Your task to perform on an android device: toggle javascript in the chrome app Image 0: 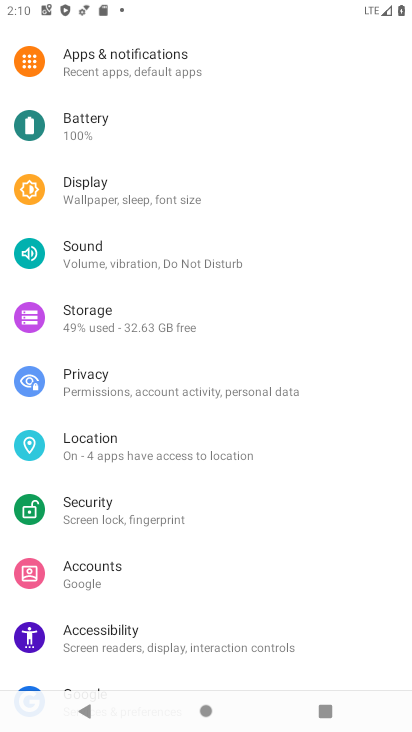
Step 0: drag from (305, 210) to (308, 577)
Your task to perform on an android device: toggle javascript in the chrome app Image 1: 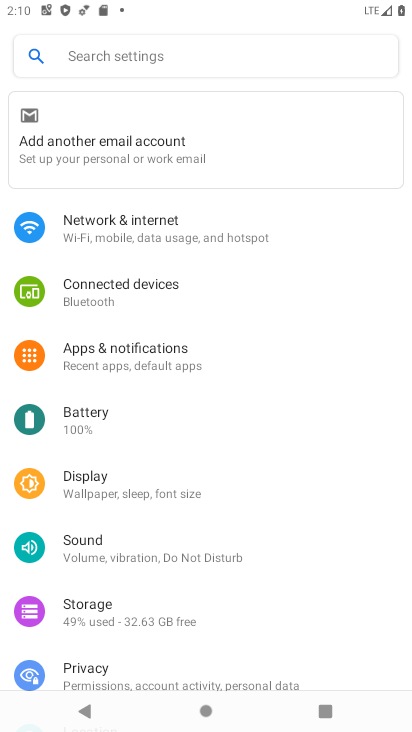
Step 1: drag from (258, 627) to (269, 1)
Your task to perform on an android device: toggle javascript in the chrome app Image 2: 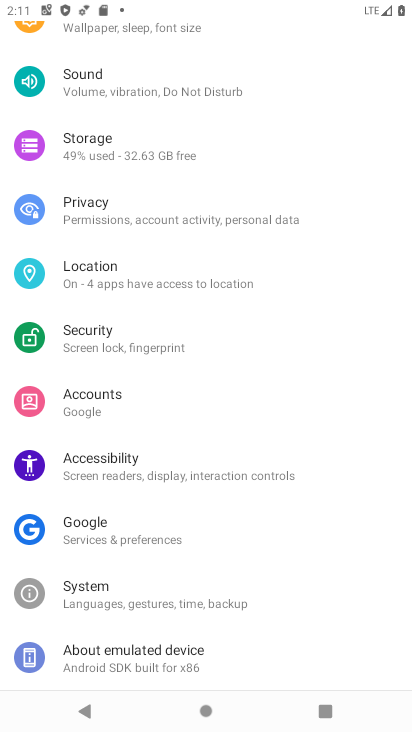
Step 2: press home button
Your task to perform on an android device: toggle javascript in the chrome app Image 3: 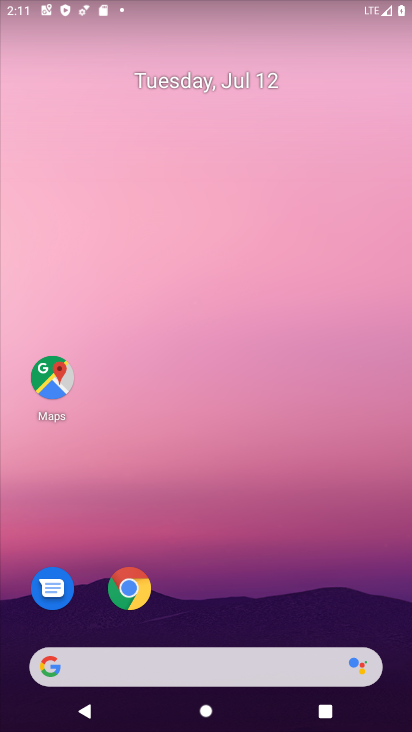
Step 3: click (142, 585)
Your task to perform on an android device: toggle javascript in the chrome app Image 4: 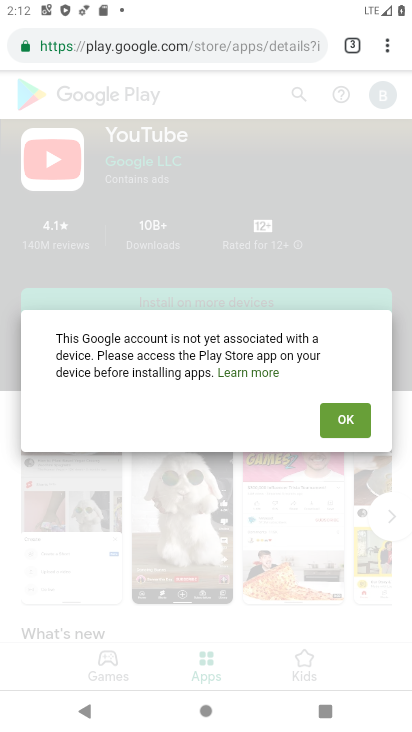
Step 4: click (384, 42)
Your task to perform on an android device: toggle javascript in the chrome app Image 5: 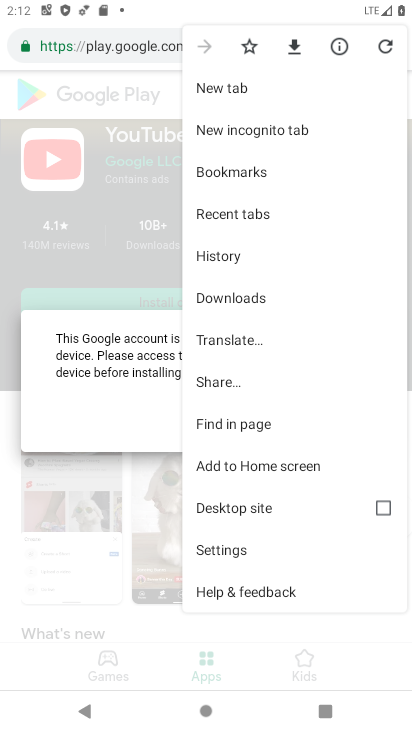
Step 5: click (246, 551)
Your task to perform on an android device: toggle javascript in the chrome app Image 6: 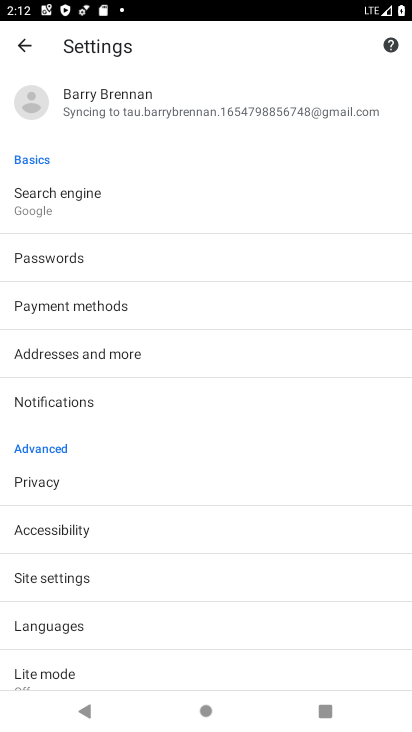
Step 6: click (75, 579)
Your task to perform on an android device: toggle javascript in the chrome app Image 7: 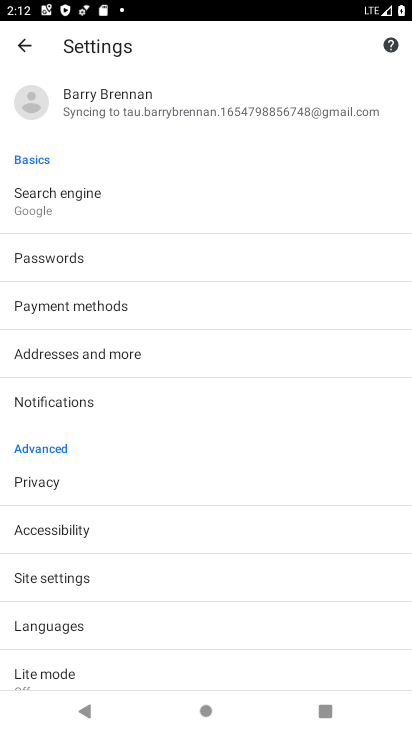
Step 7: click (71, 581)
Your task to perform on an android device: toggle javascript in the chrome app Image 8: 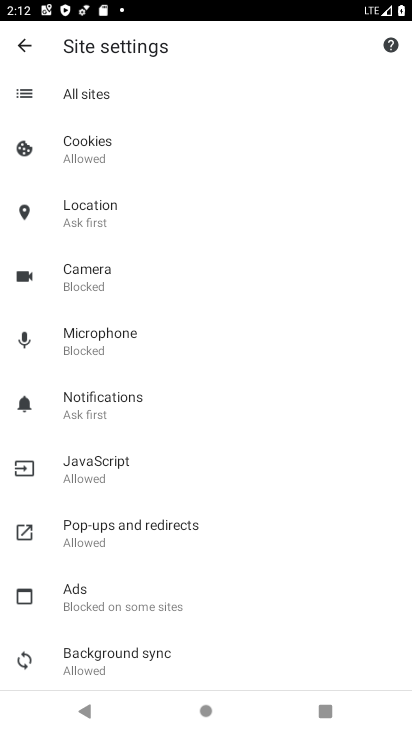
Step 8: click (104, 472)
Your task to perform on an android device: toggle javascript in the chrome app Image 9: 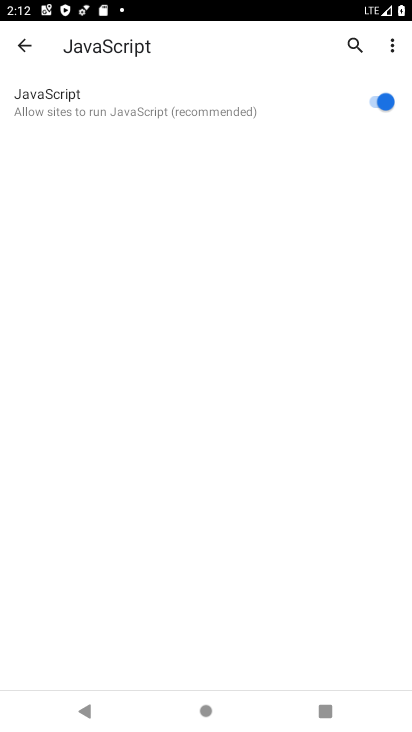
Step 9: click (385, 98)
Your task to perform on an android device: toggle javascript in the chrome app Image 10: 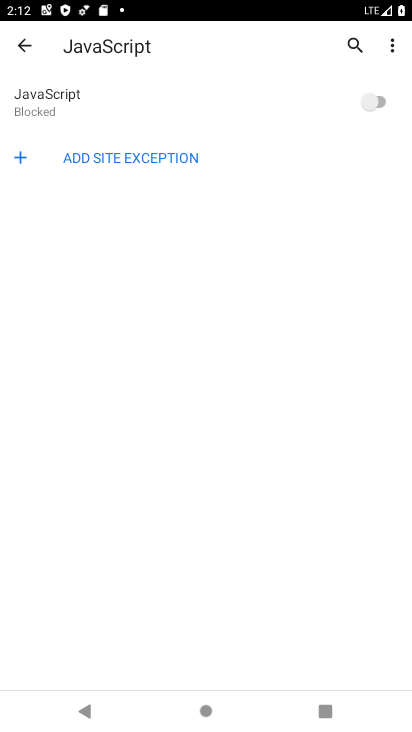
Step 10: task complete